Your task to perform on an android device: allow notifications from all sites in the chrome app Image 0: 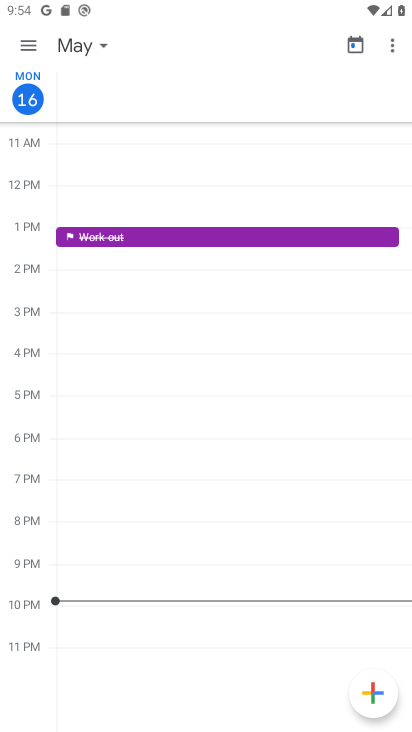
Step 0: press home button
Your task to perform on an android device: allow notifications from all sites in the chrome app Image 1: 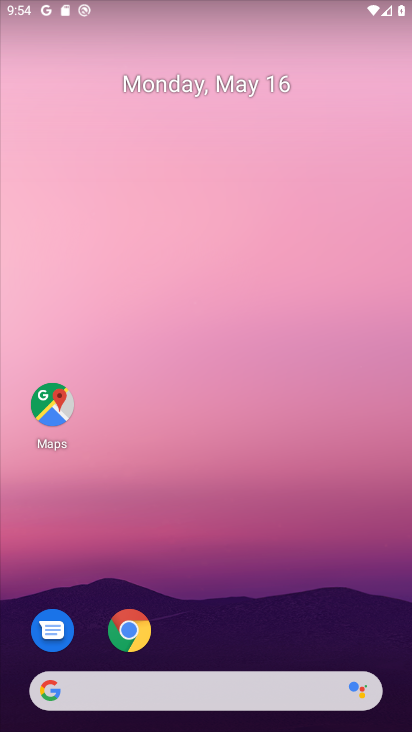
Step 1: click (136, 629)
Your task to perform on an android device: allow notifications from all sites in the chrome app Image 2: 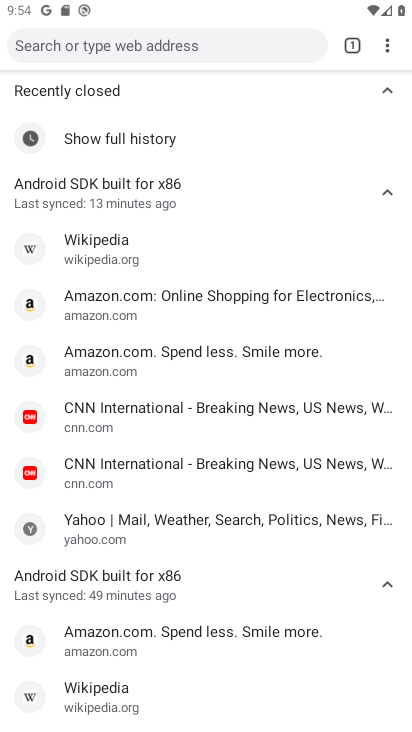
Step 2: click (389, 46)
Your task to perform on an android device: allow notifications from all sites in the chrome app Image 3: 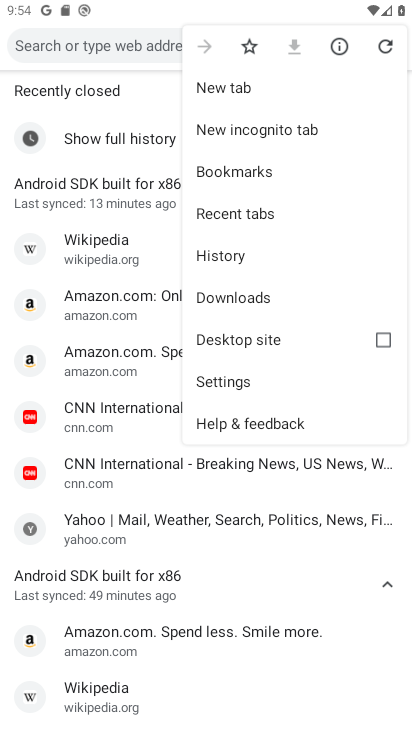
Step 3: click (289, 381)
Your task to perform on an android device: allow notifications from all sites in the chrome app Image 4: 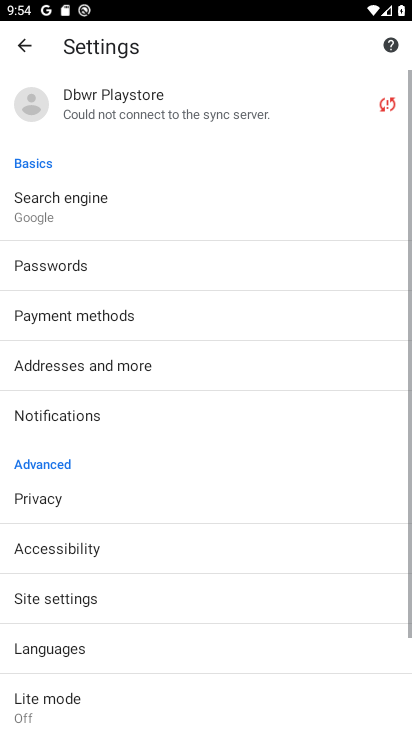
Step 4: click (256, 416)
Your task to perform on an android device: allow notifications from all sites in the chrome app Image 5: 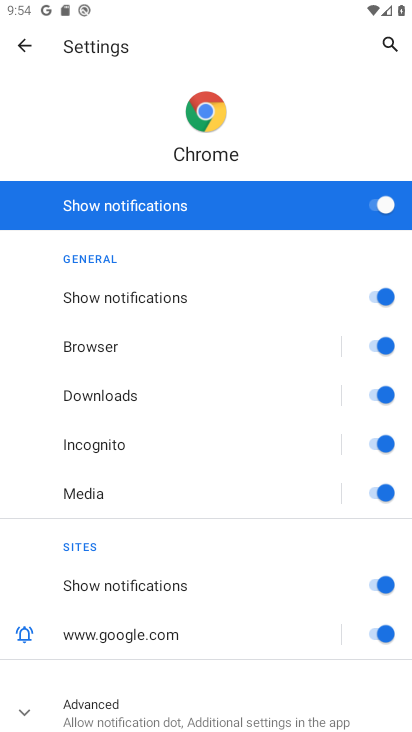
Step 5: task complete